Your task to perform on an android device: manage bookmarks in the chrome app Image 0: 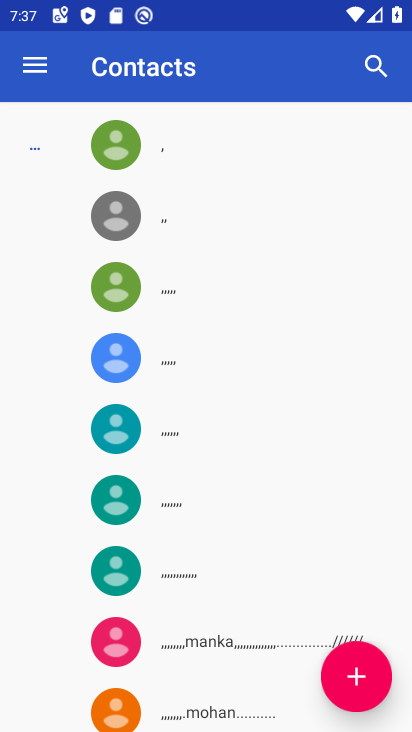
Step 0: press home button
Your task to perform on an android device: manage bookmarks in the chrome app Image 1: 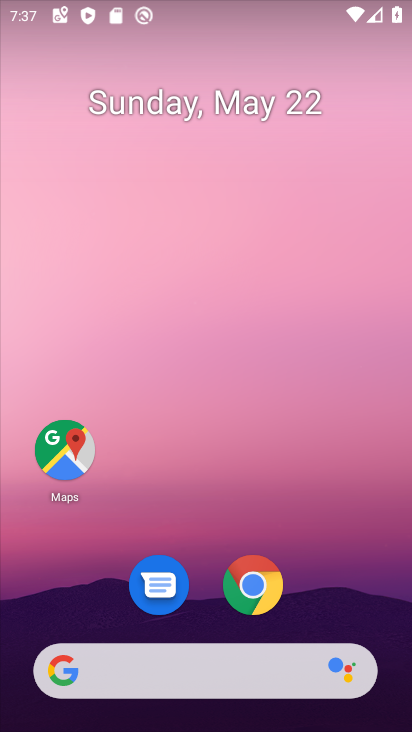
Step 1: click (256, 586)
Your task to perform on an android device: manage bookmarks in the chrome app Image 2: 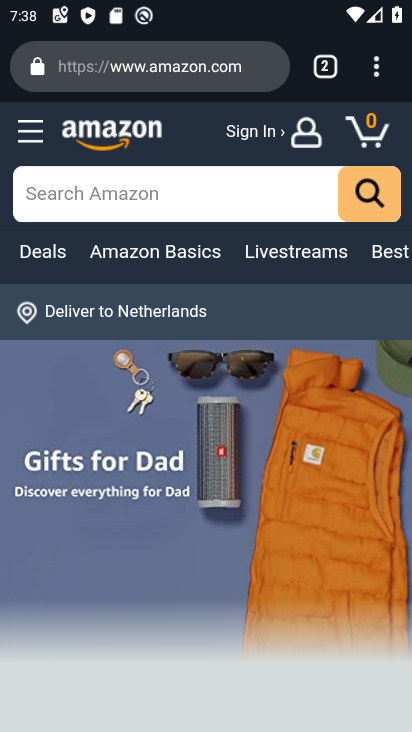
Step 2: click (379, 74)
Your task to perform on an android device: manage bookmarks in the chrome app Image 3: 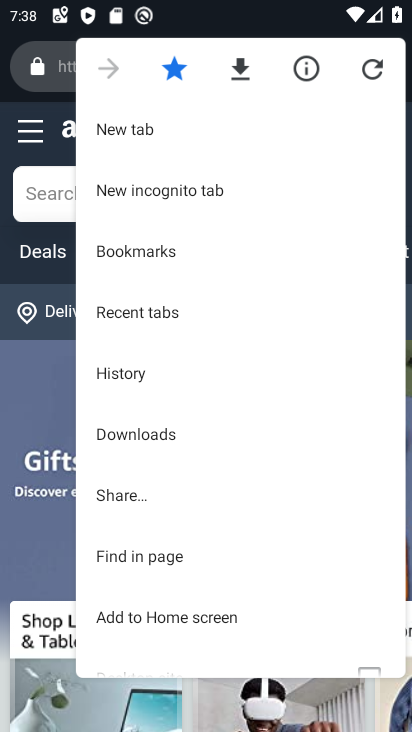
Step 3: click (191, 246)
Your task to perform on an android device: manage bookmarks in the chrome app Image 4: 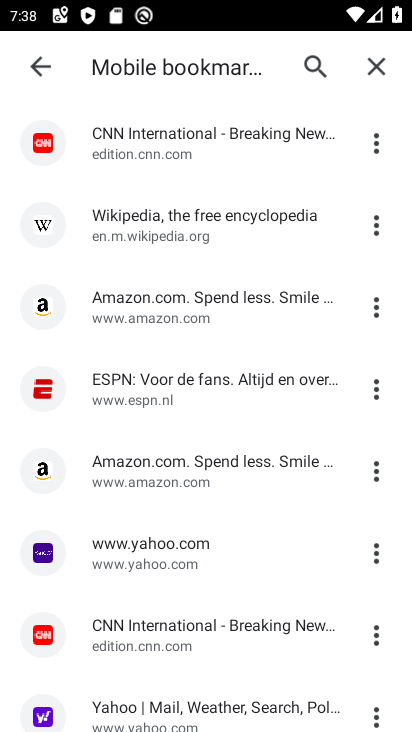
Step 4: click (379, 224)
Your task to perform on an android device: manage bookmarks in the chrome app Image 5: 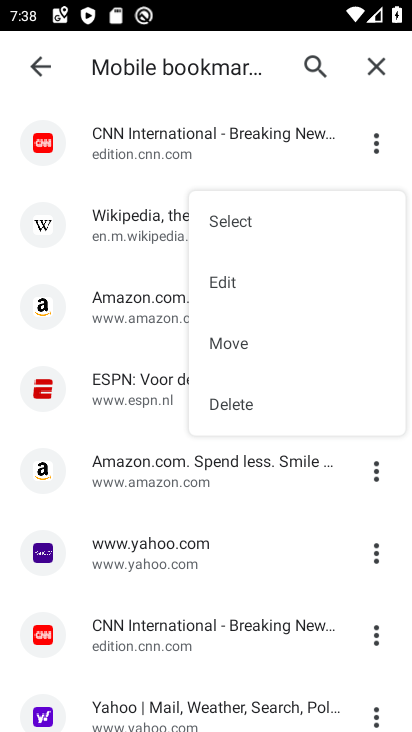
Step 5: click (275, 270)
Your task to perform on an android device: manage bookmarks in the chrome app Image 6: 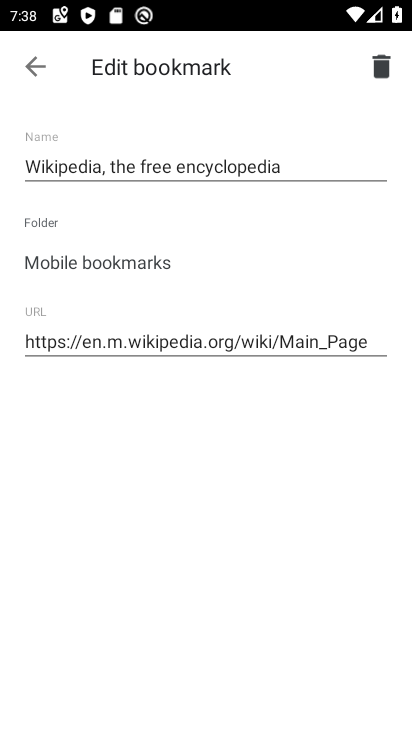
Step 6: click (34, 60)
Your task to perform on an android device: manage bookmarks in the chrome app Image 7: 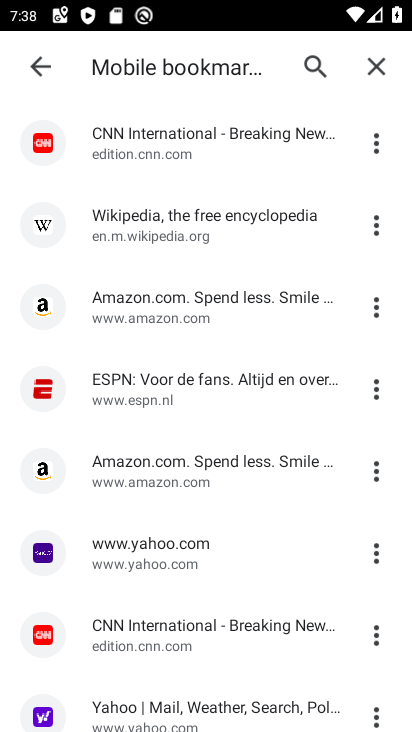
Step 7: task complete